Your task to perform on an android device: Go to network settings Image 0: 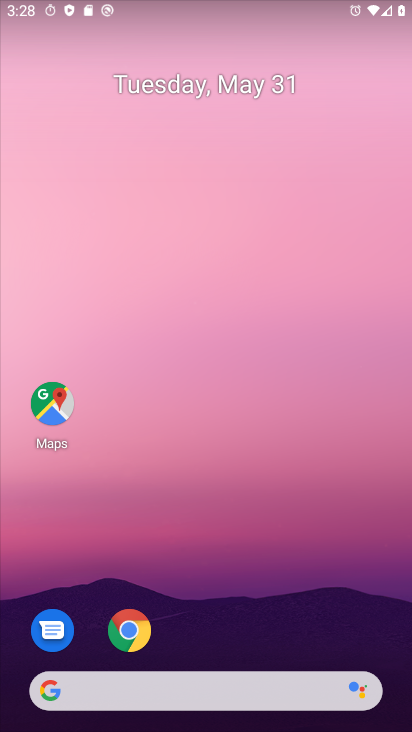
Step 0: drag from (274, 631) to (253, 116)
Your task to perform on an android device: Go to network settings Image 1: 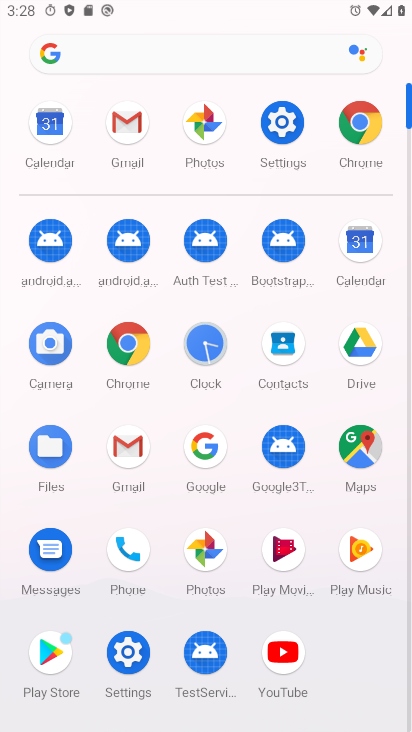
Step 1: click (277, 135)
Your task to perform on an android device: Go to network settings Image 2: 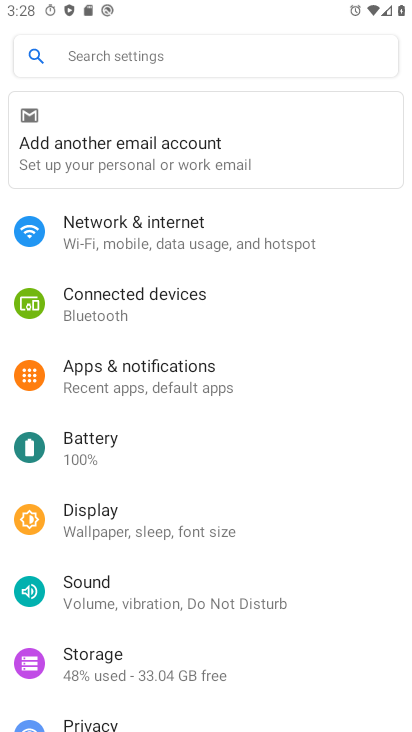
Step 2: click (240, 272)
Your task to perform on an android device: Go to network settings Image 3: 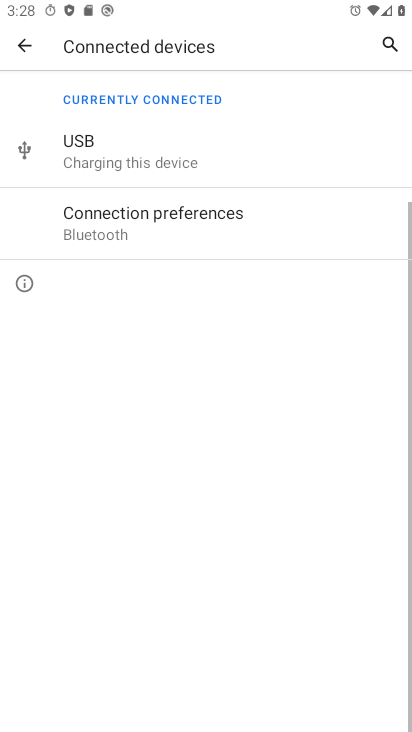
Step 3: press back button
Your task to perform on an android device: Go to network settings Image 4: 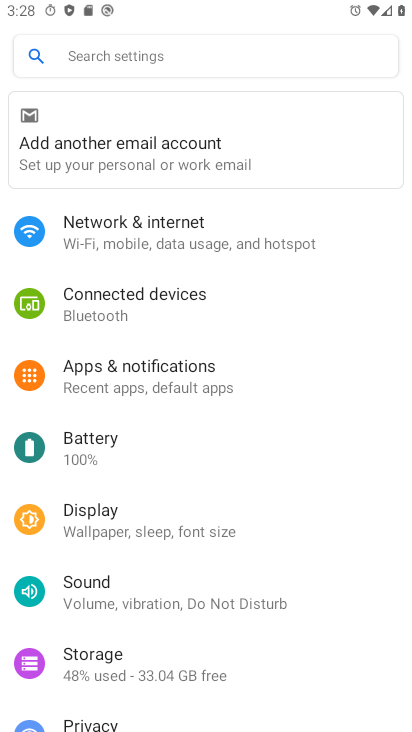
Step 4: click (295, 231)
Your task to perform on an android device: Go to network settings Image 5: 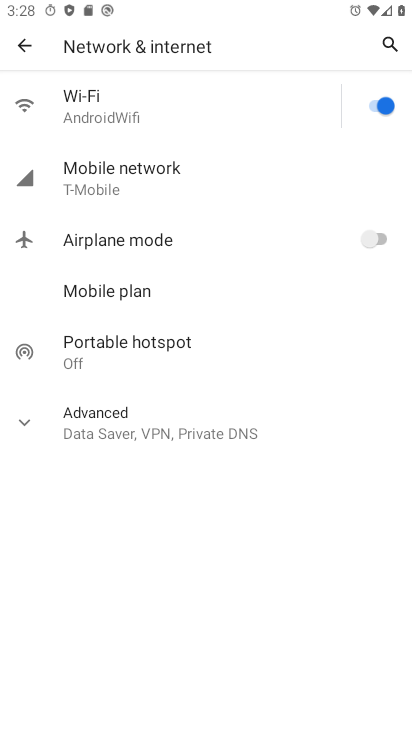
Step 5: click (150, 167)
Your task to perform on an android device: Go to network settings Image 6: 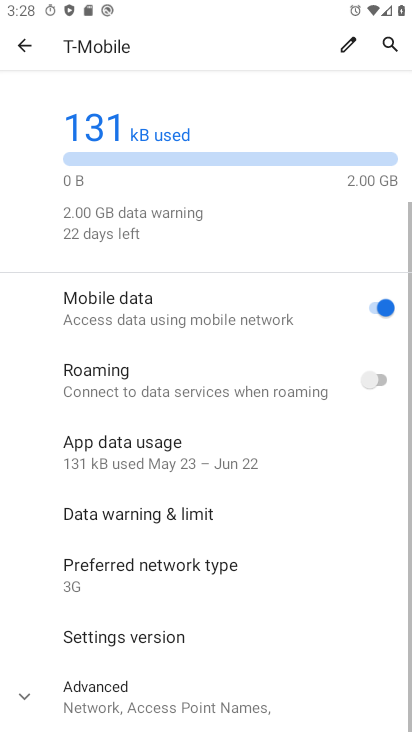
Step 6: task complete